Your task to perform on an android device: see tabs open on other devices in the chrome app Image 0: 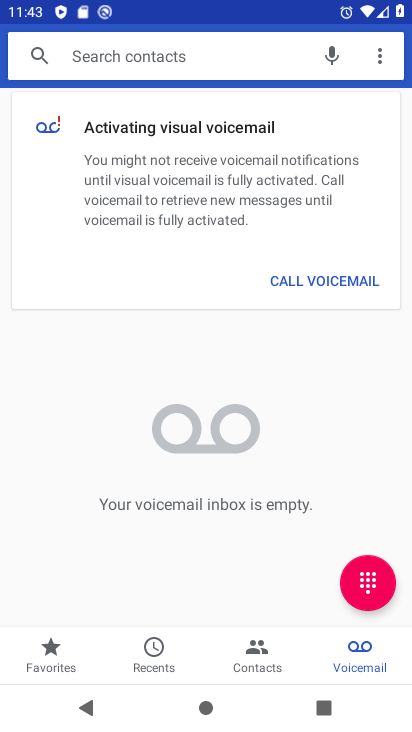
Step 0: press home button
Your task to perform on an android device: see tabs open on other devices in the chrome app Image 1: 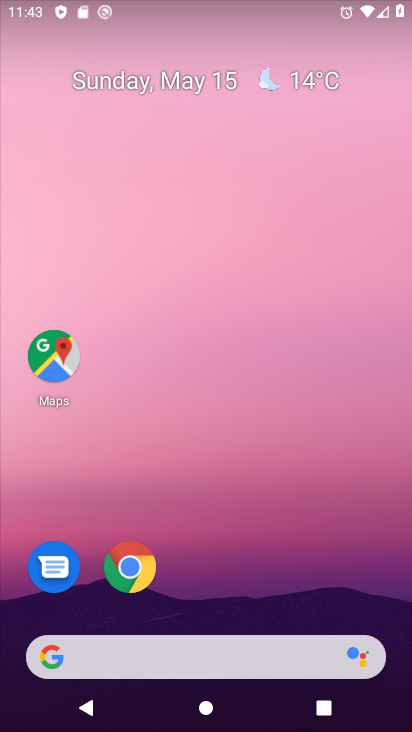
Step 1: click (133, 567)
Your task to perform on an android device: see tabs open on other devices in the chrome app Image 2: 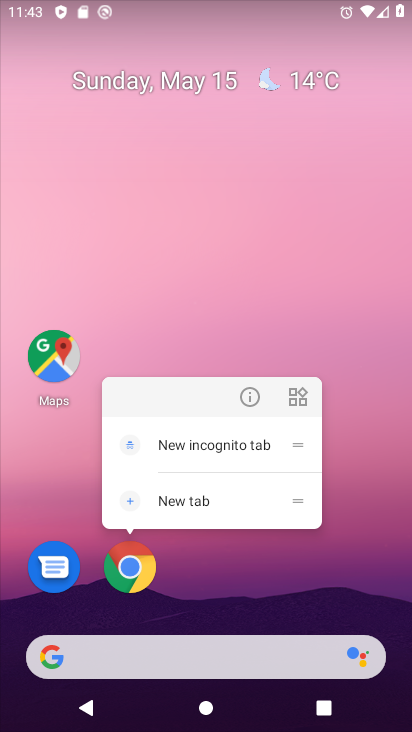
Step 2: click (133, 567)
Your task to perform on an android device: see tabs open on other devices in the chrome app Image 3: 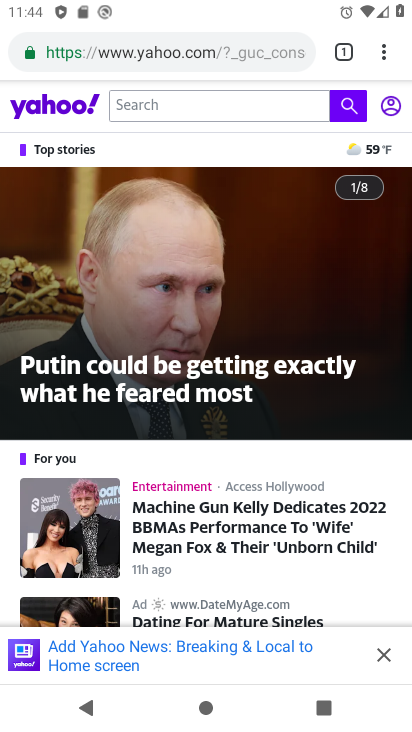
Step 3: click (386, 45)
Your task to perform on an android device: see tabs open on other devices in the chrome app Image 4: 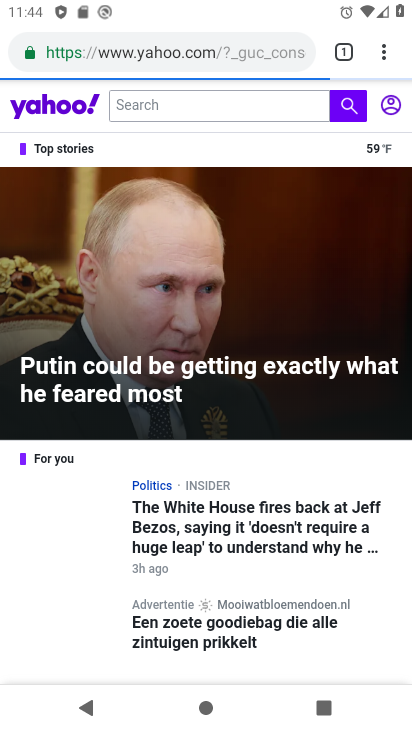
Step 4: click (386, 45)
Your task to perform on an android device: see tabs open on other devices in the chrome app Image 5: 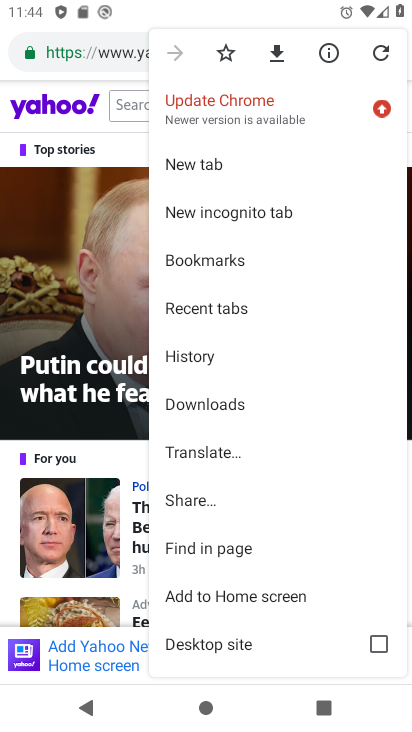
Step 5: click (244, 308)
Your task to perform on an android device: see tabs open on other devices in the chrome app Image 6: 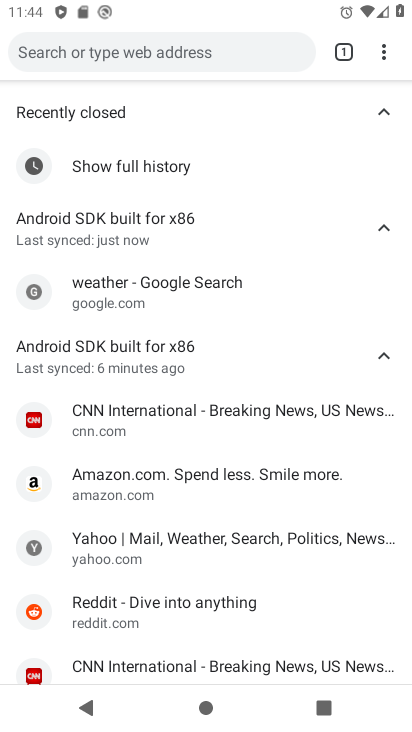
Step 6: task complete